Your task to perform on an android device: Check the weather Image 0: 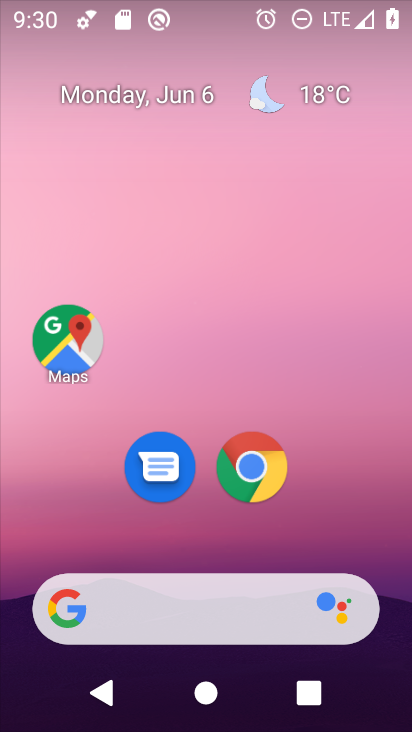
Step 0: click (307, 102)
Your task to perform on an android device: Check the weather Image 1: 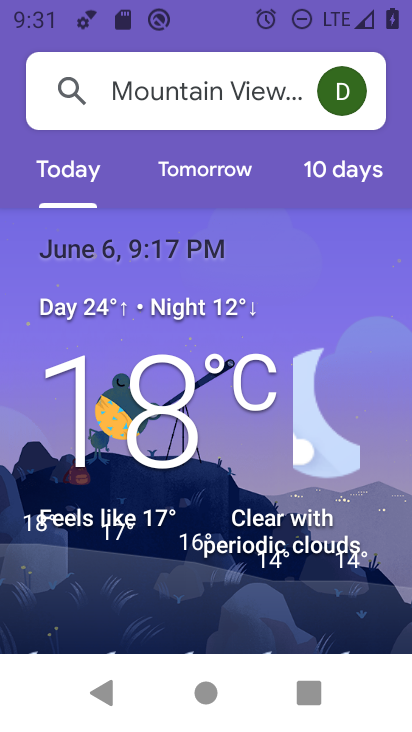
Step 1: task complete